Your task to perform on an android device: Is it going to rain tomorrow? Image 0: 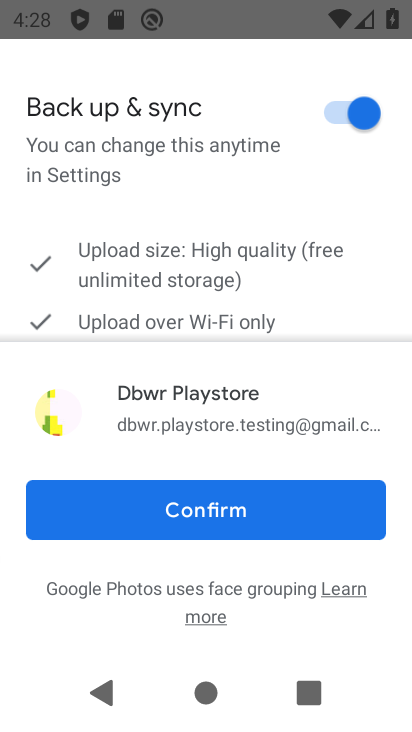
Step 0: press home button
Your task to perform on an android device: Is it going to rain tomorrow? Image 1: 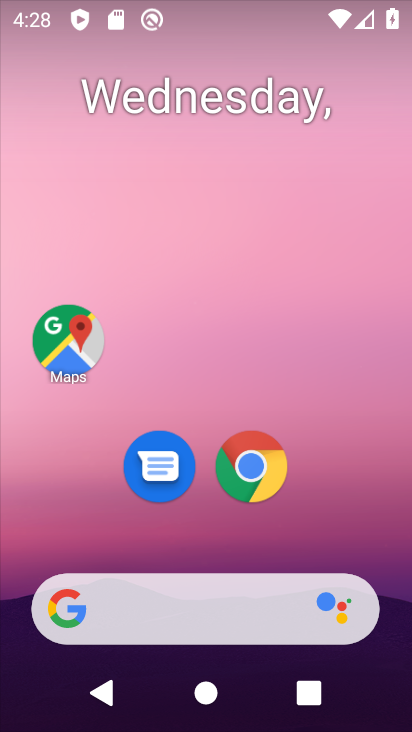
Step 1: drag from (8, 165) to (377, 251)
Your task to perform on an android device: Is it going to rain tomorrow? Image 2: 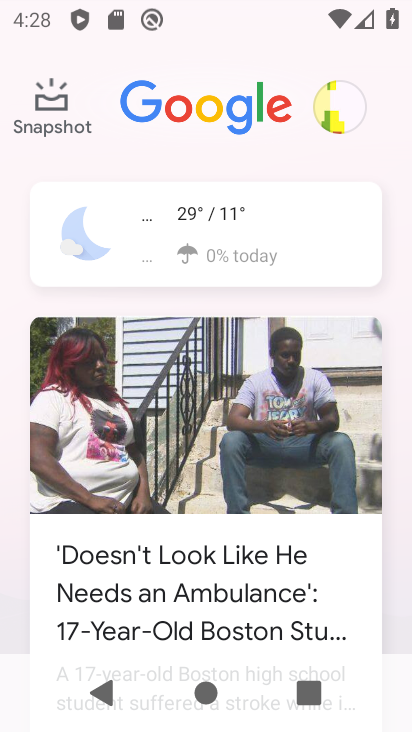
Step 2: click (227, 250)
Your task to perform on an android device: Is it going to rain tomorrow? Image 3: 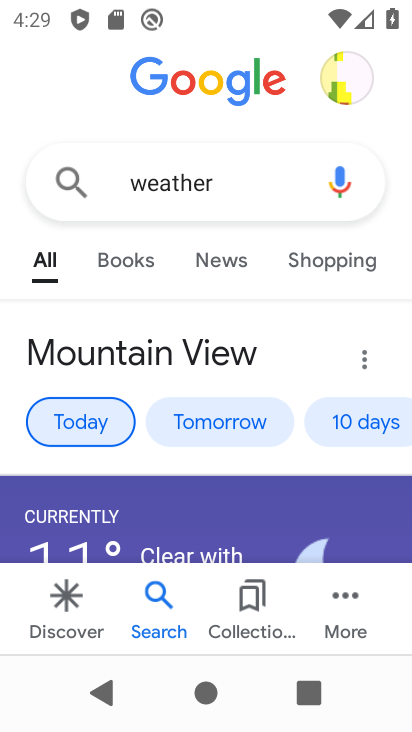
Step 3: click (218, 417)
Your task to perform on an android device: Is it going to rain tomorrow? Image 4: 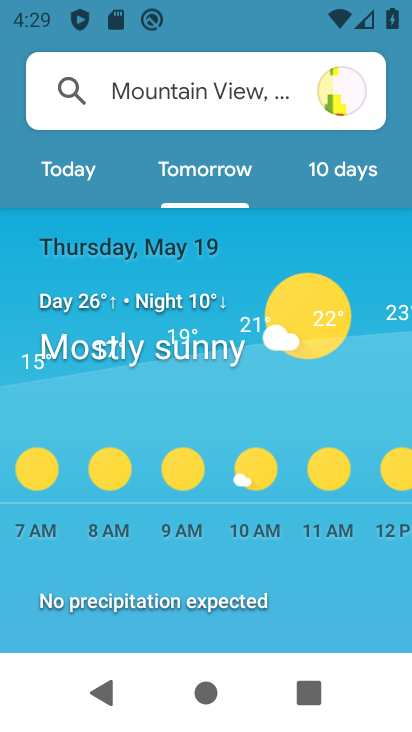
Step 4: task complete